Your task to perform on an android device: Open the calendar app, open the side menu, and click the "Day" option Image 0: 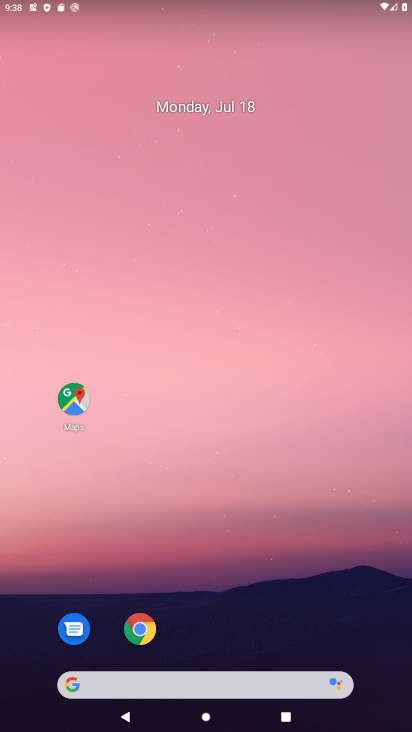
Step 0: drag from (267, 584) to (229, 205)
Your task to perform on an android device: Open the calendar app, open the side menu, and click the "Day" option Image 1: 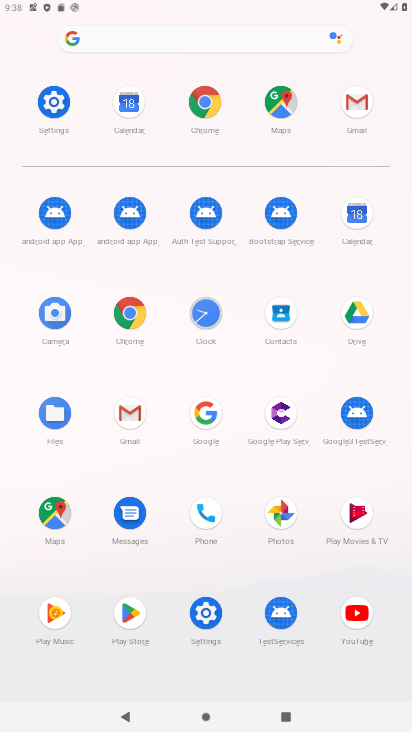
Step 1: click (359, 219)
Your task to perform on an android device: Open the calendar app, open the side menu, and click the "Day" option Image 2: 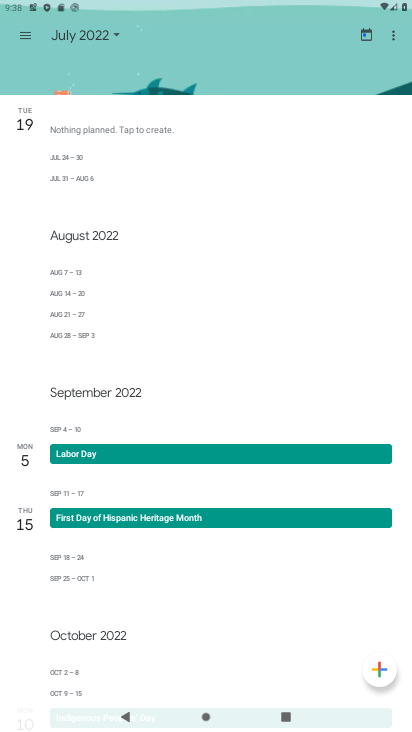
Step 2: click (13, 30)
Your task to perform on an android device: Open the calendar app, open the side menu, and click the "Day" option Image 3: 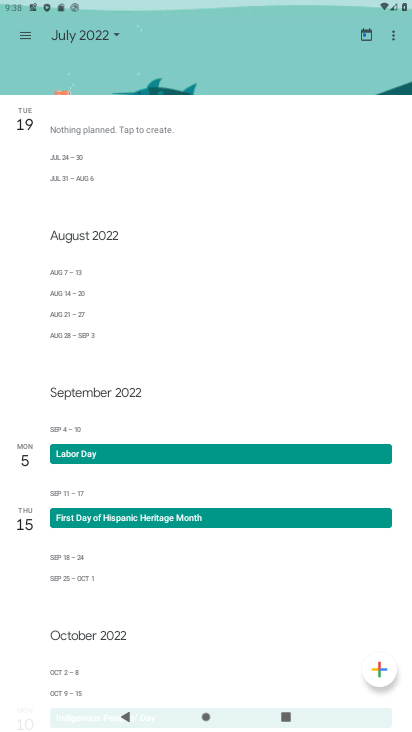
Step 3: click (23, 27)
Your task to perform on an android device: Open the calendar app, open the side menu, and click the "Day" option Image 4: 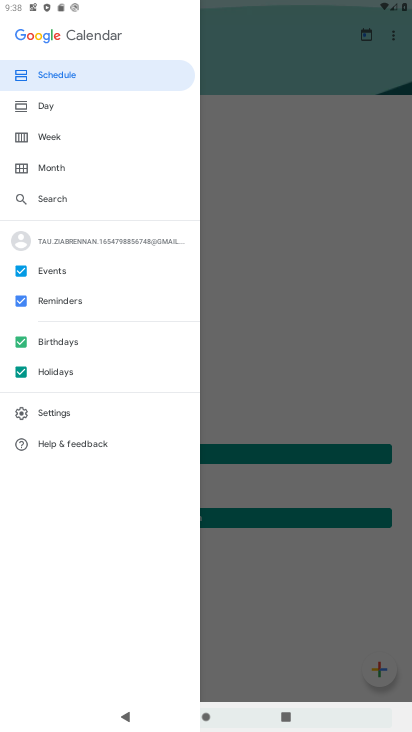
Step 4: click (54, 118)
Your task to perform on an android device: Open the calendar app, open the side menu, and click the "Day" option Image 5: 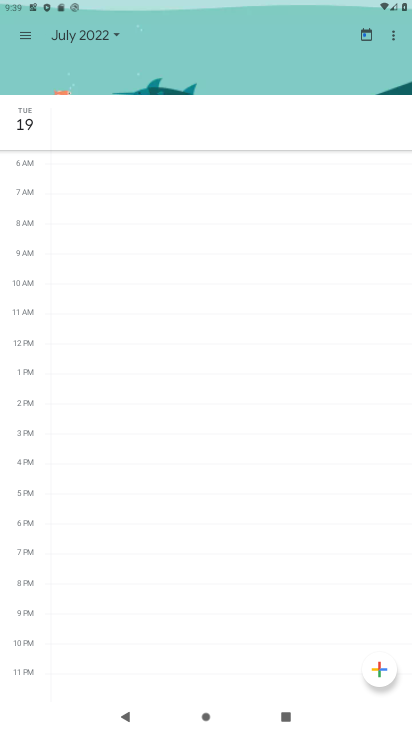
Step 5: task complete